Your task to perform on an android device: open app "HBO Max: Stream TV & Movies" (install if not already installed), go to login, and select forgot password Image 0: 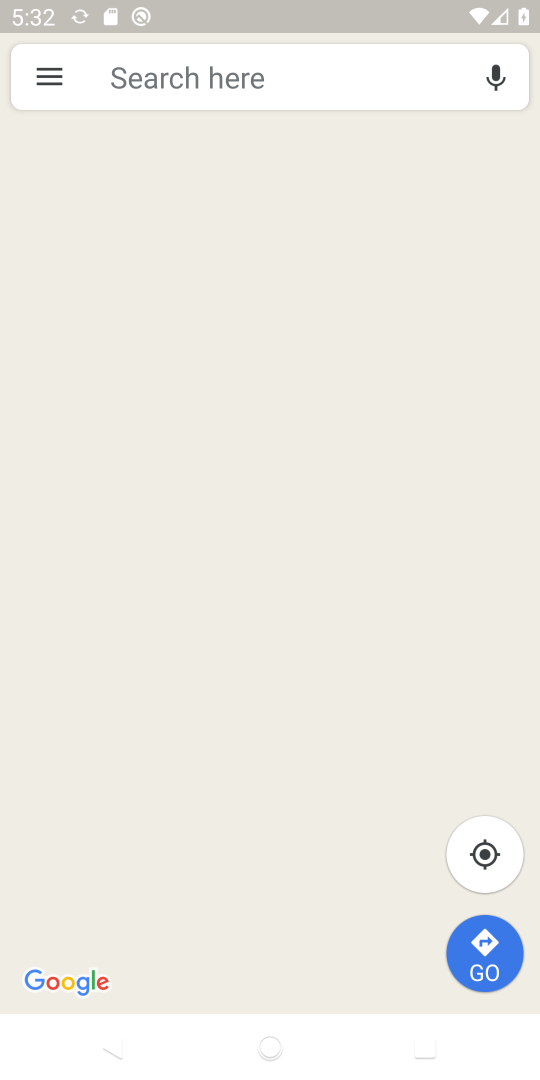
Step 0: press home button
Your task to perform on an android device: open app "HBO Max: Stream TV & Movies" (install if not already installed), go to login, and select forgot password Image 1: 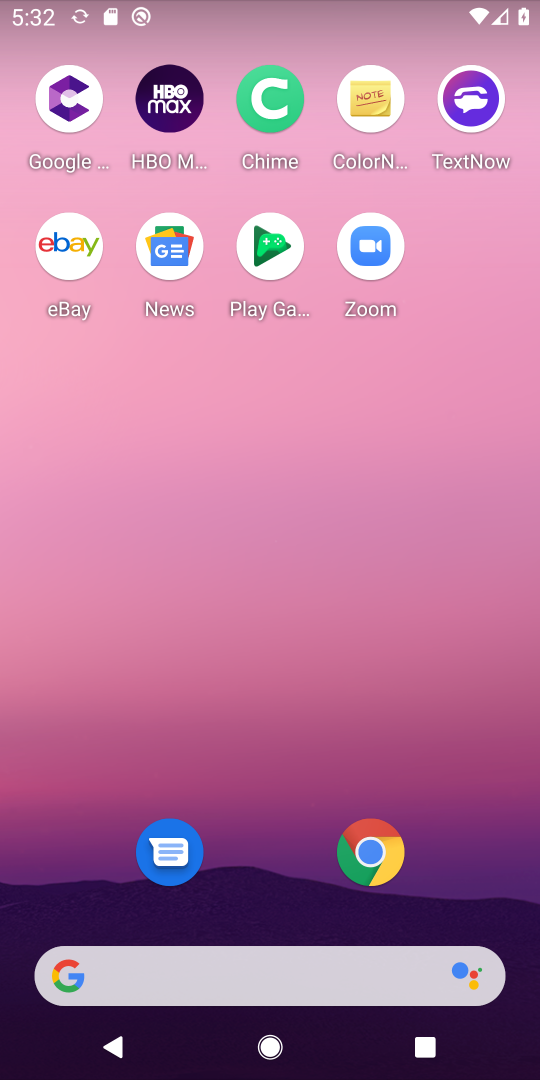
Step 1: drag from (252, 971) to (413, 197)
Your task to perform on an android device: open app "HBO Max: Stream TV & Movies" (install if not already installed), go to login, and select forgot password Image 2: 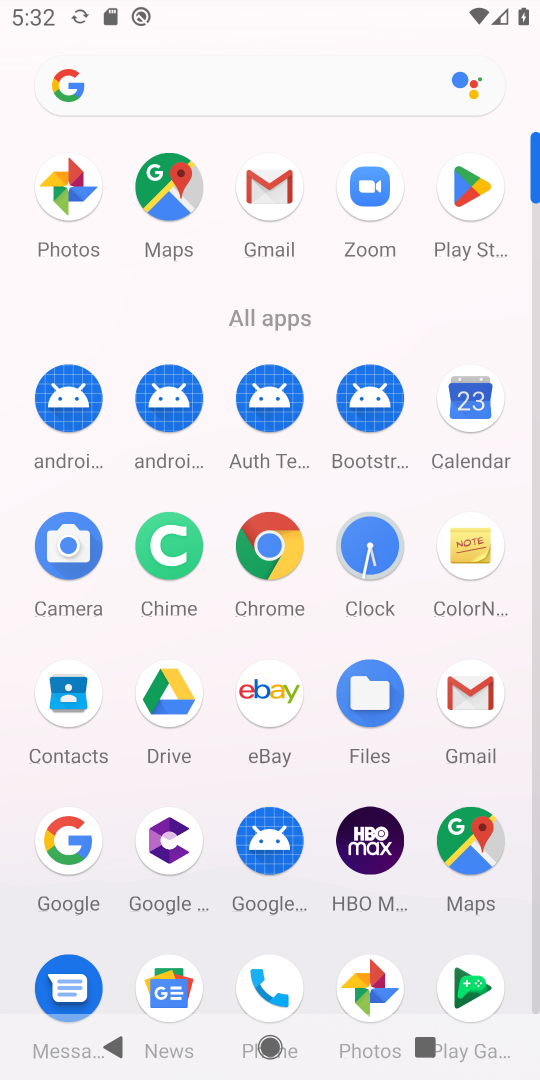
Step 2: click (469, 187)
Your task to perform on an android device: open app "HBO Max: Stream TV & Movies" (install if not already installed), go to login, and select forgot password Image 3: 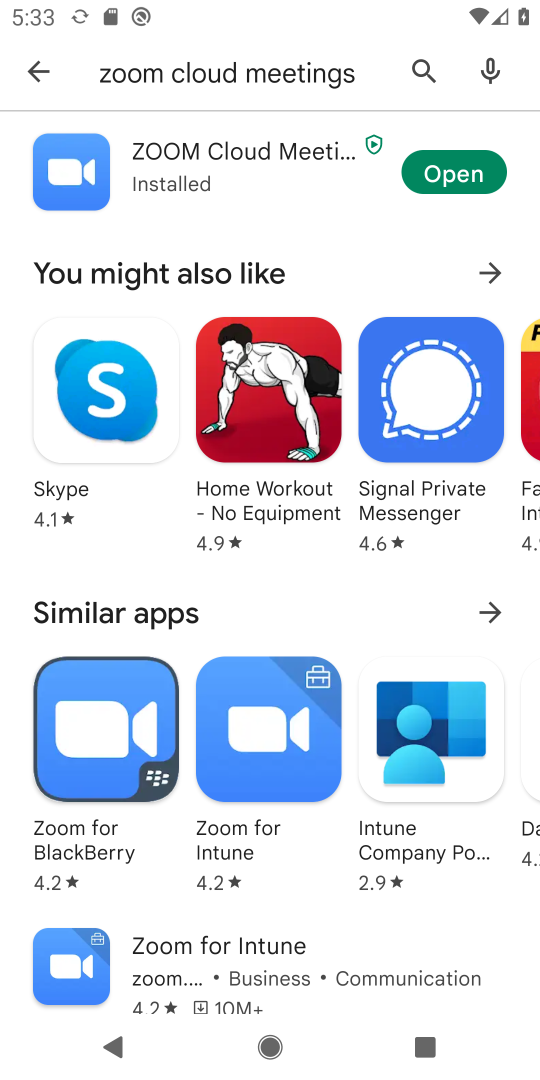
Step 3: press back button
Your task to perform on an android device: open app "HBO Max: Stream TV & Movies" (install if not already installed), go to login, and select forgot password Image 4: 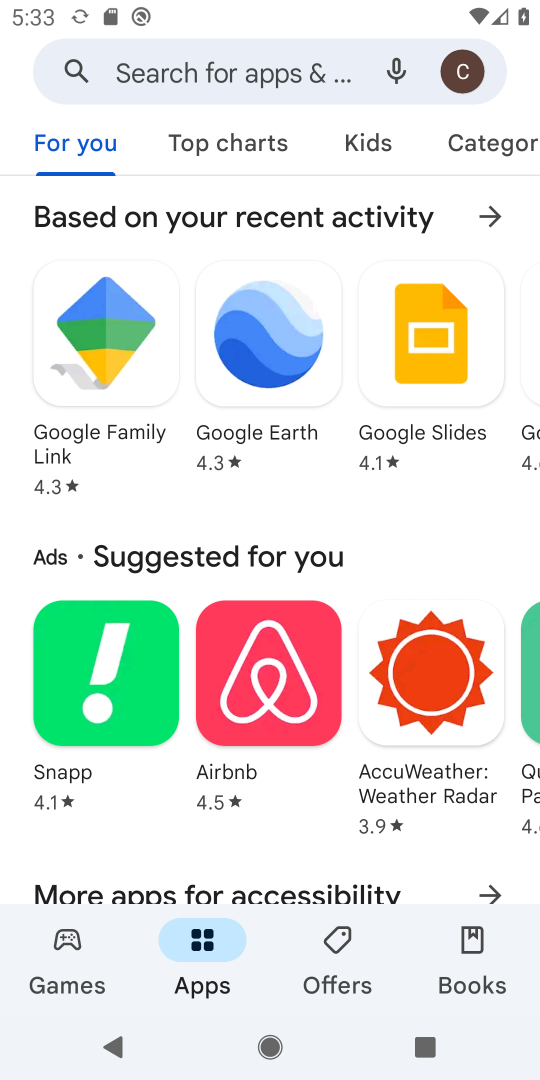
Step 4: click (258, 71)
Your task to perform on an android device: open app "HBO Max: Stream TV & Movies" (install if not already installed), go to login, and select forgot password Image 5: 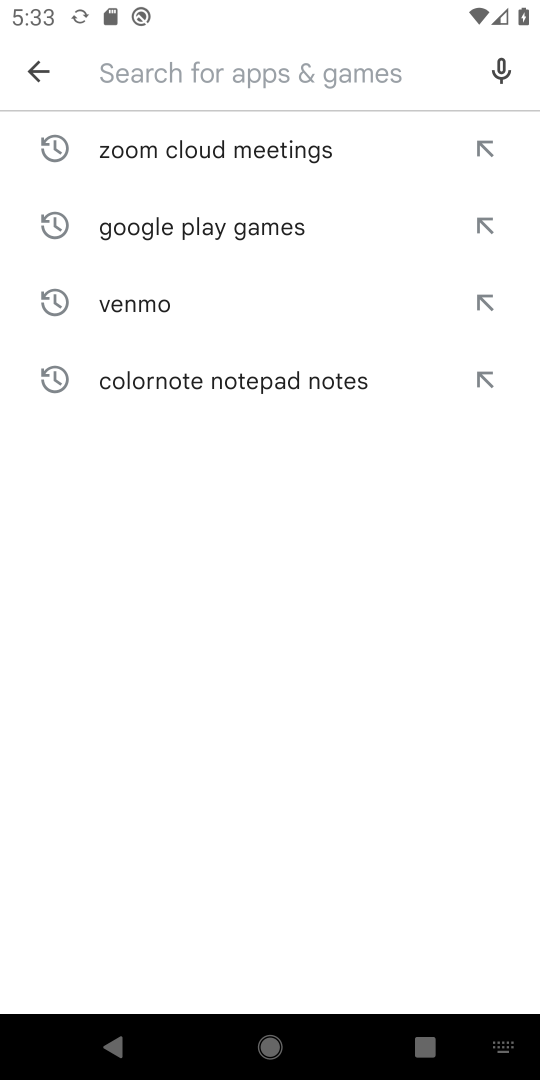
Step 5: click (340, 76)
Your task to perform on an android device: open app "HBO Max: Stream TV & Movies" (install if not already installed), go to login, and select forgot password Image 6: 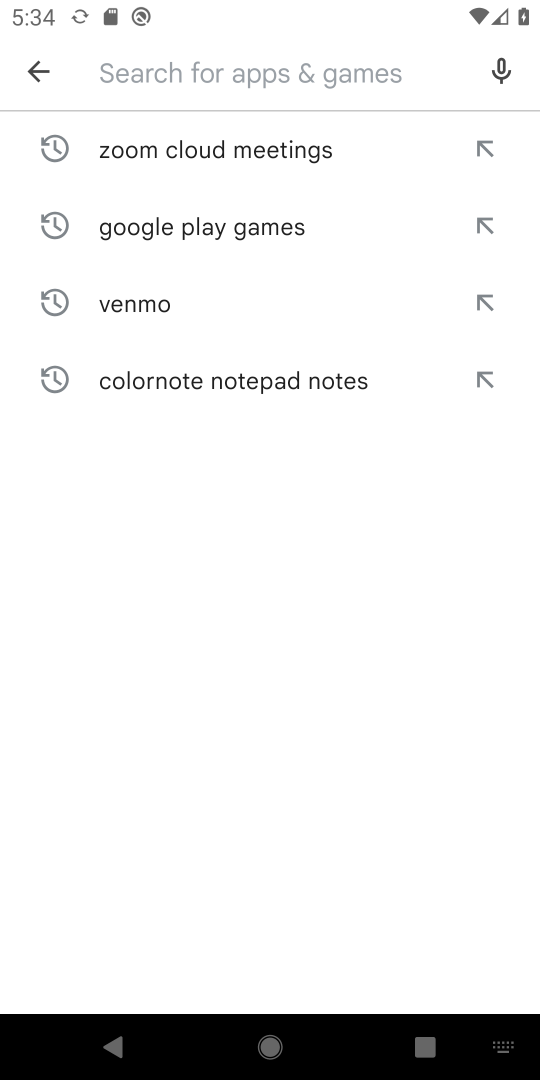
Step 6: type "HBO Max: Stream TV & Movies"
Your task to perform on an android device: open app "HBO Max: Stream TV & Movies" (install if not already installed), go to login, and select forgot password Image 7: 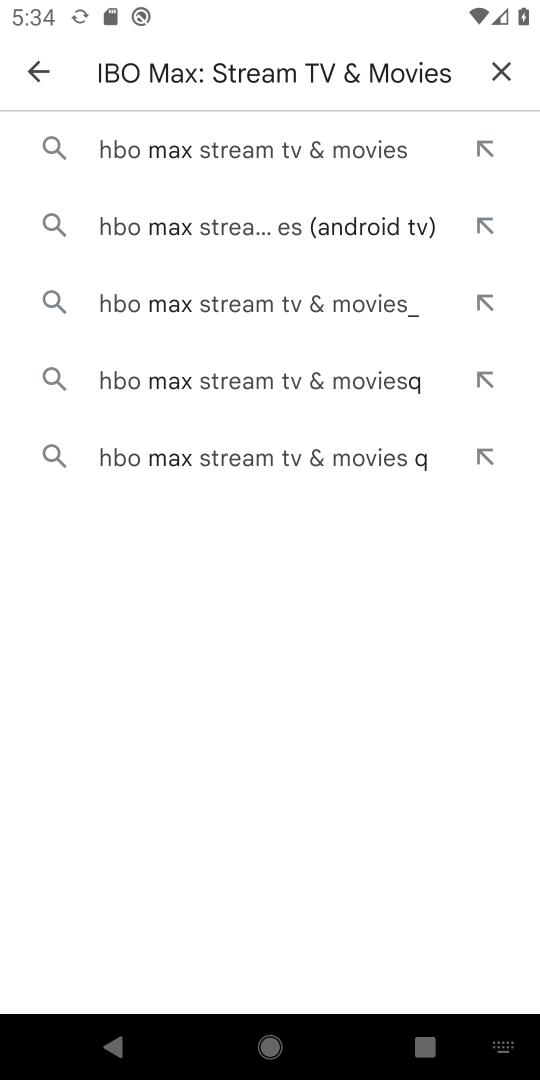
Step 7: click (284, 155)
Your task to perform on an android device: open app "HBO Max: Stream TV & Movies" (install if not already installed), go to login, and select forgot password Image 8: 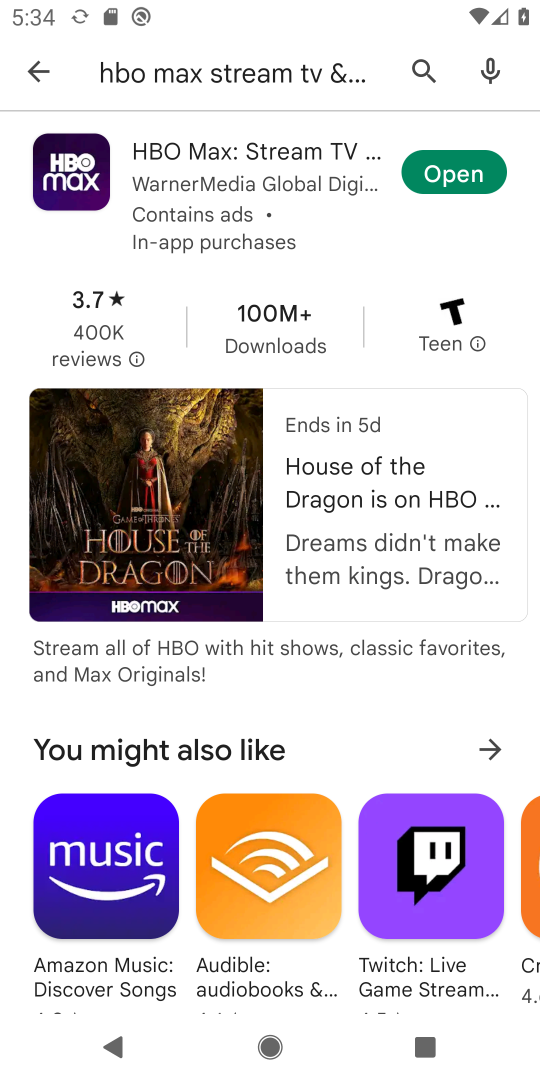
Step 8: click (460, 181)
Your task to perform on an android device: open app "HBO Max: Stream TV & Movies" (install if not already installed), go to login, and select forgot password Image 9: 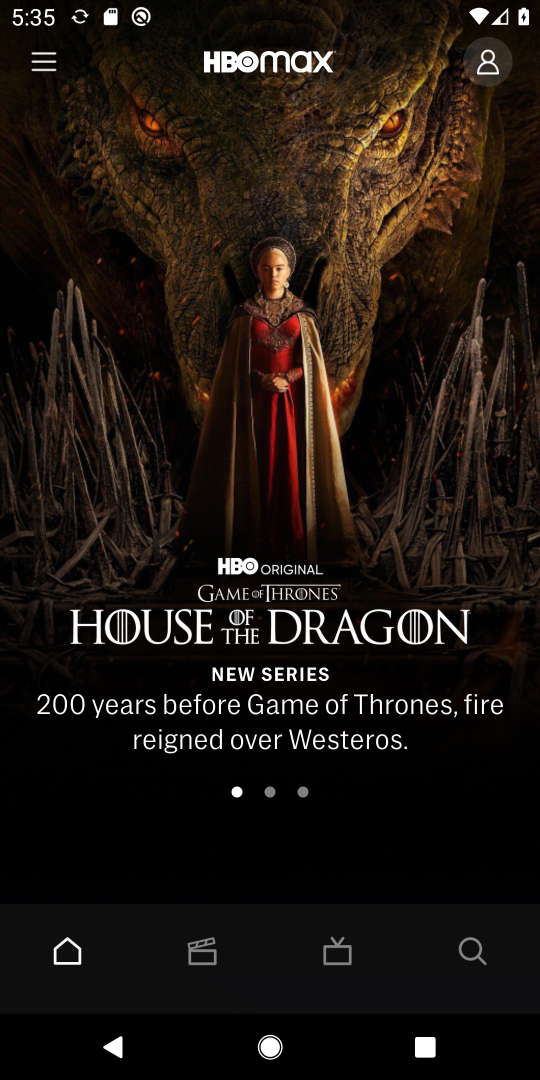
Step 9: click (493, 69)
Your task to perform on an android device: open app "HBO Max: Stream TV & Movies" (install if not already installed), go to login, and select forgot password Image 10: 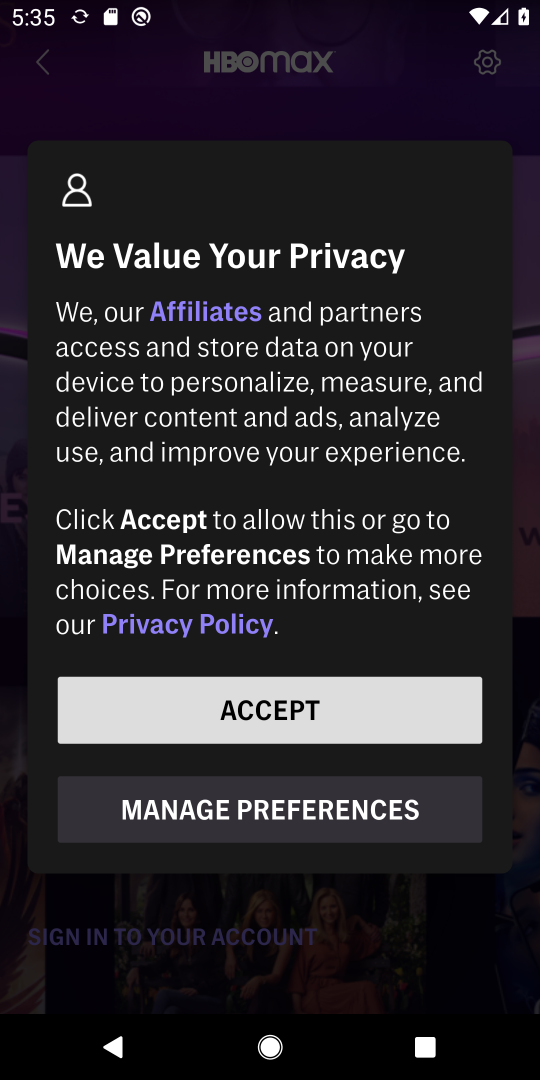
Step 10: click (277, 705)
Your task to perform on an android device: open app "HBO Max: Stream TV & Movies" (install if not already installed), go to login, and select forgot password Image 11: 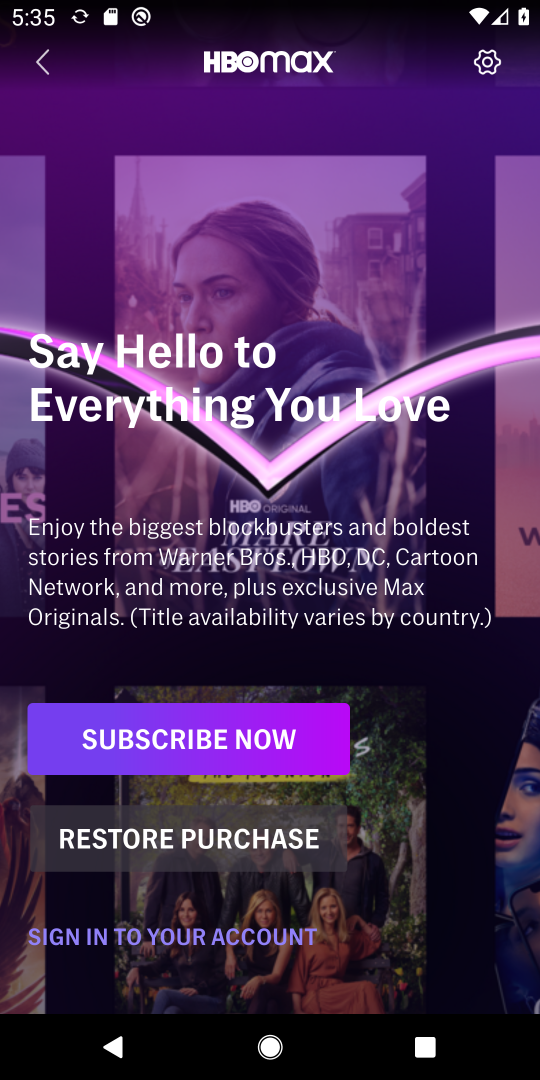
Step 11: click (156, 955)
Your task to perform on an android device: open app "HBO Max: Stream TV & Movies" (install if not already installed), go to login, and select forgot password Image 12: 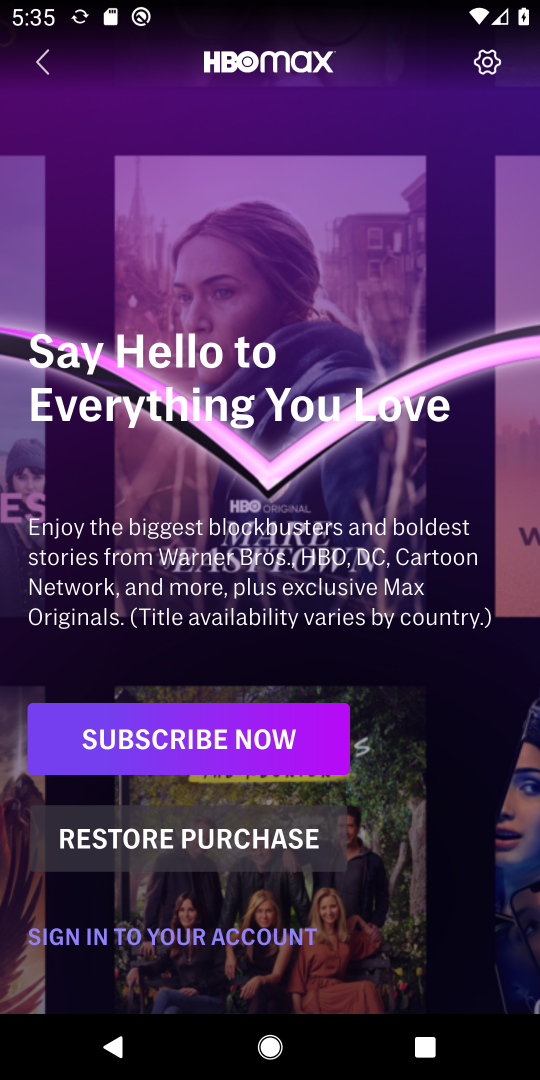
Step 12: click (163, 941)
Your task to perform on an android device: open app "HBO Max: Stream TV & Movies" (install if not already installed), go to login, and select forgot password Image 13: 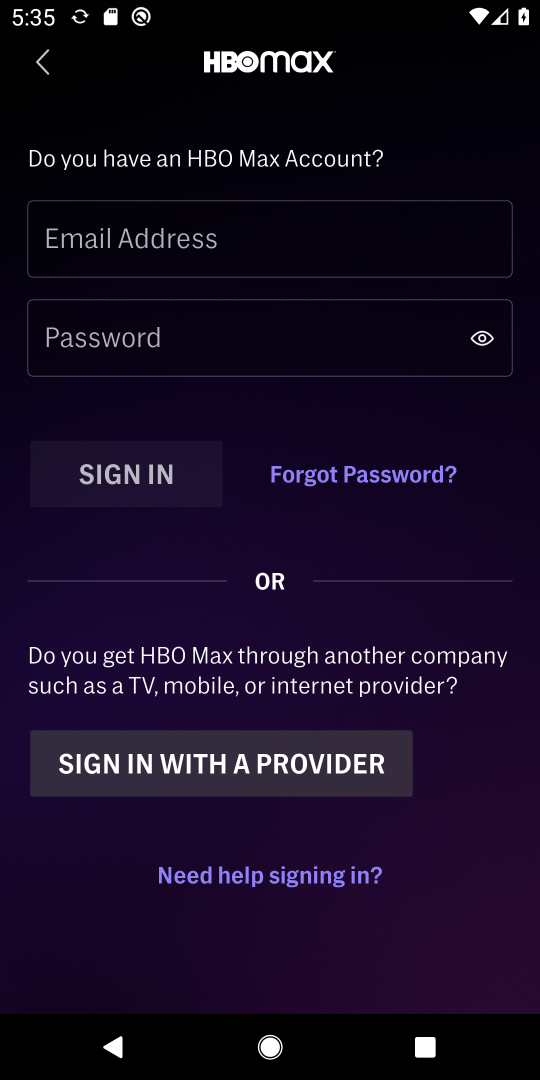
Step 13: click (328, 477)
Your task to perform on an android device: open app "HBO Max: Stream TV & Movies" (install if not already installed), go to login, and select forgot password Image 14: 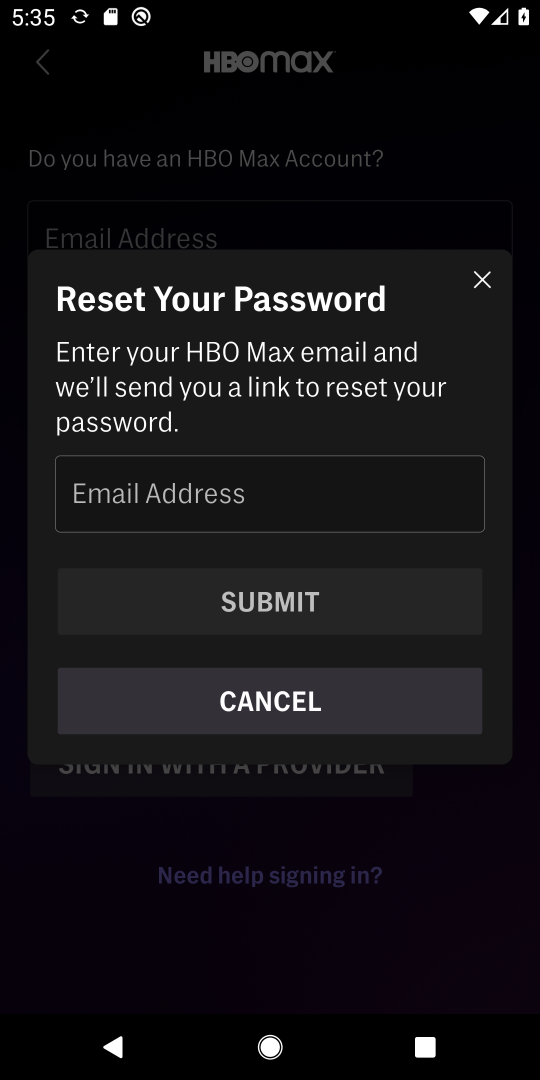
Step 14: task complete